Your task to perform on an android device: manage bookmarks in the chrome app Image 0: 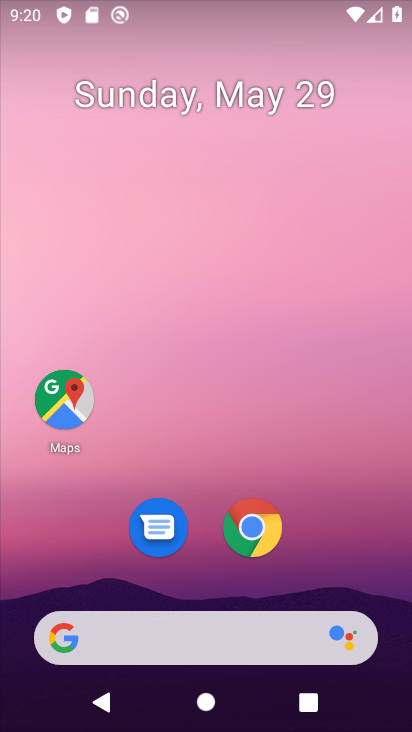
Step 0: click (259, 533)
Your task to perform on an android device: manage bookmarks in the chrome app Image 1: 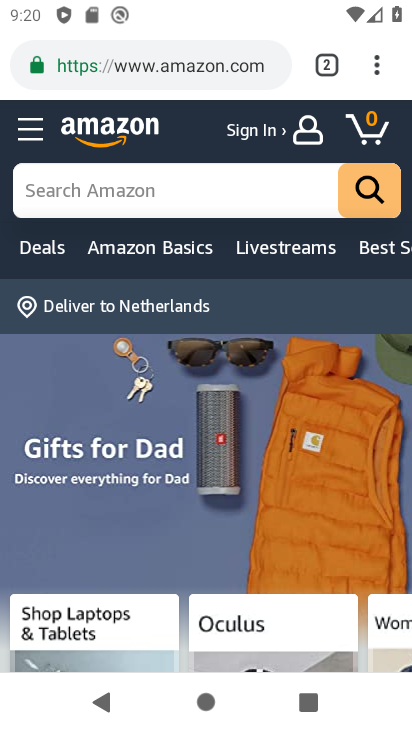
Step 1: drag from (380, 78) to (190, 247)
Your task to perform on an android device: manage bookmarks in the chrome app Image 2: 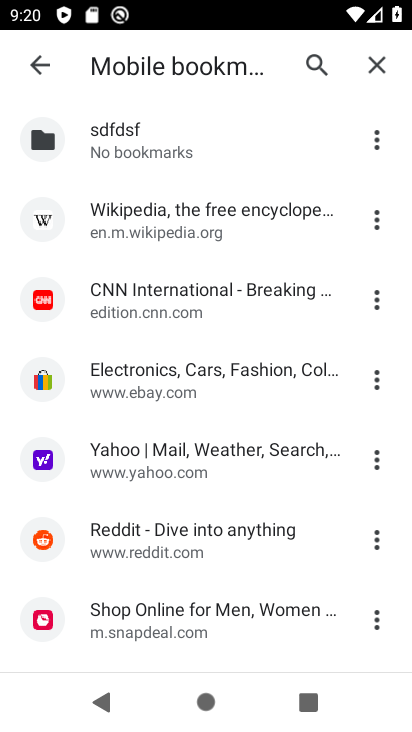
Step 2: click (380, 217)
Your task to perform on an android device: manage bookmarks in the chrome app Image 3: 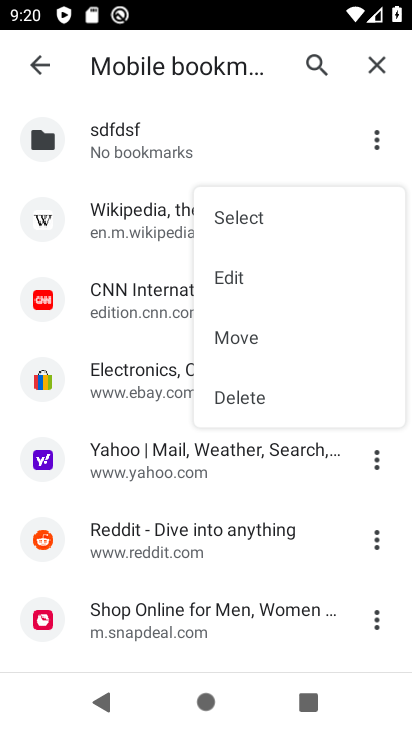
Step 3: click (256, 343)
Your task to perform on an android device: manage bookmarks in the chrome app Image 4: 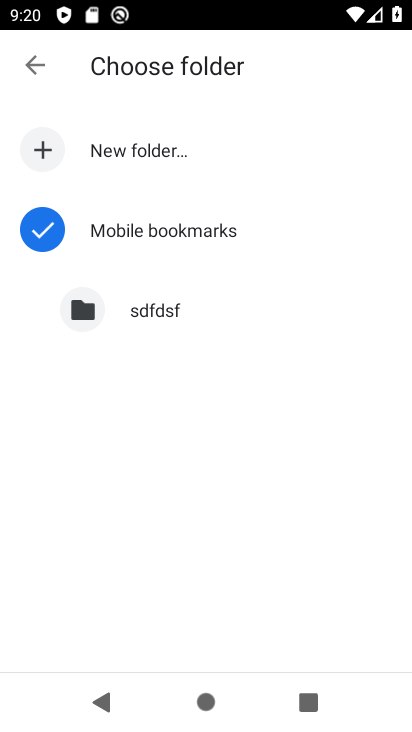
Step 4: click (145, 311)
Your task to perform on an android device: manage bookmarks in the chrome app Image 5: 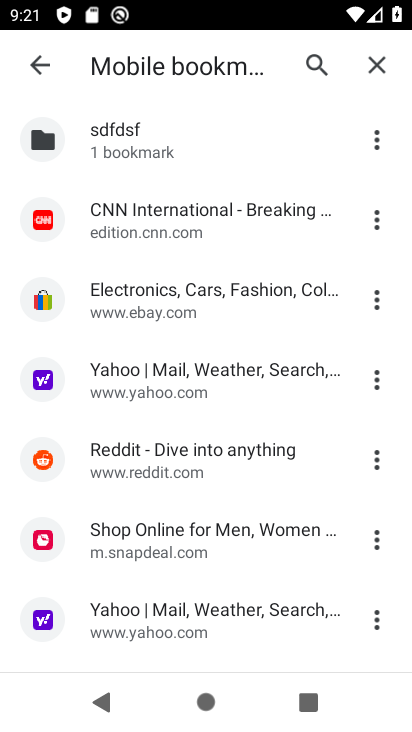
Step 5: task complete